Your task to perform on an android device: What's the weather? Image 0: 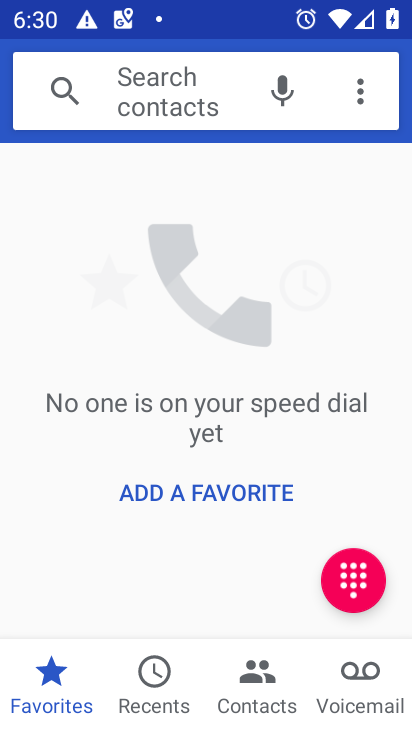
Step 0: press home button
Your task to perform on an android device: What's the weather? Image 1: 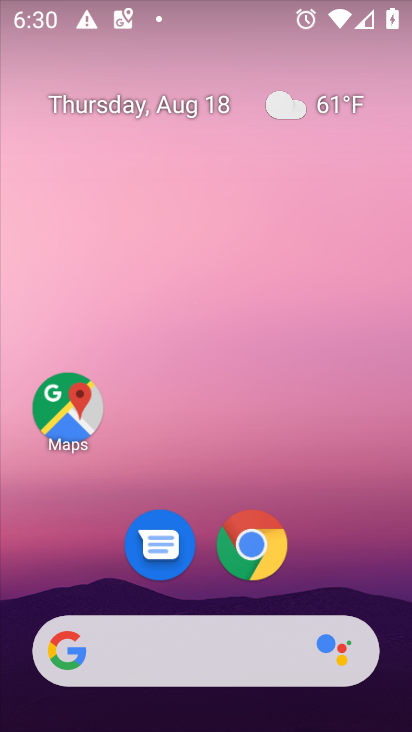
Step 1: click (54, 658)
Your task to perform on an android device: What's the weather? Image 2: 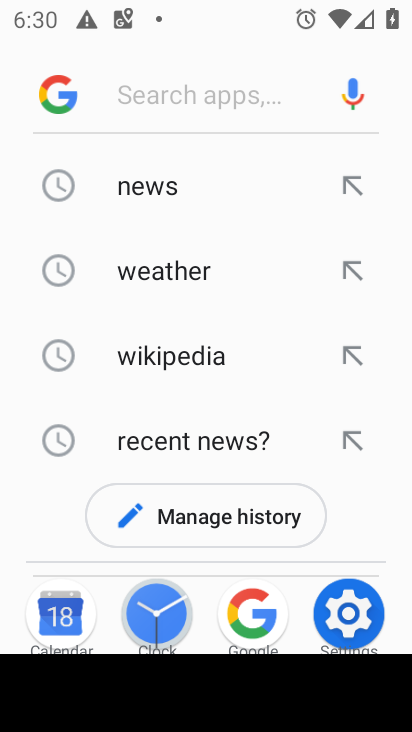
Step 2: click (154, 268)
Your task to perform on an android device: What's the weather? Image 3: 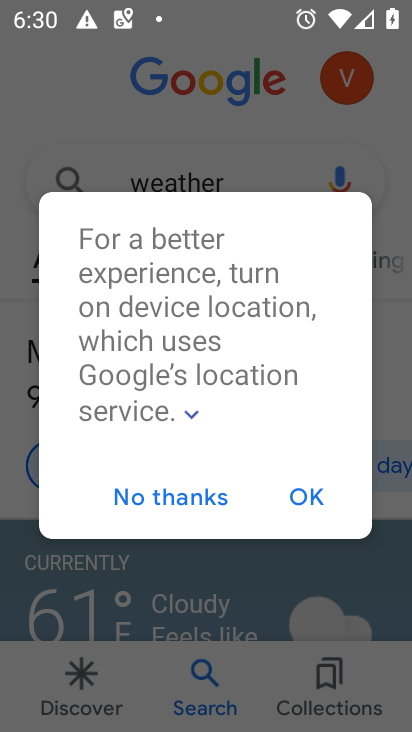
Step 3: click (303, 491)
Your task to perform on an android device: What's the weather? Image 4: 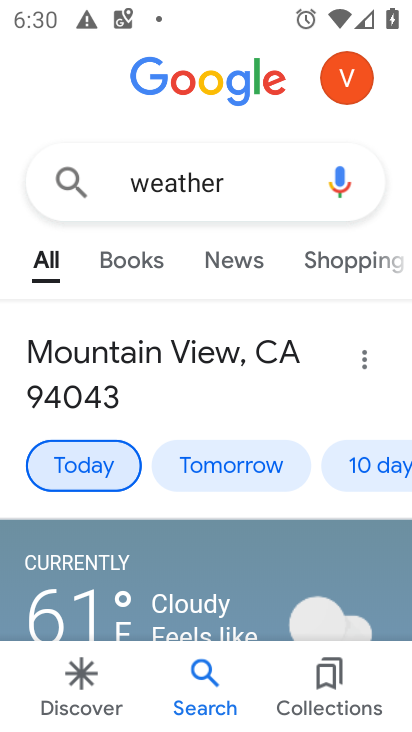
Step 4: task complete